Your task to perform on an android device: Open privacy settings Image 0: 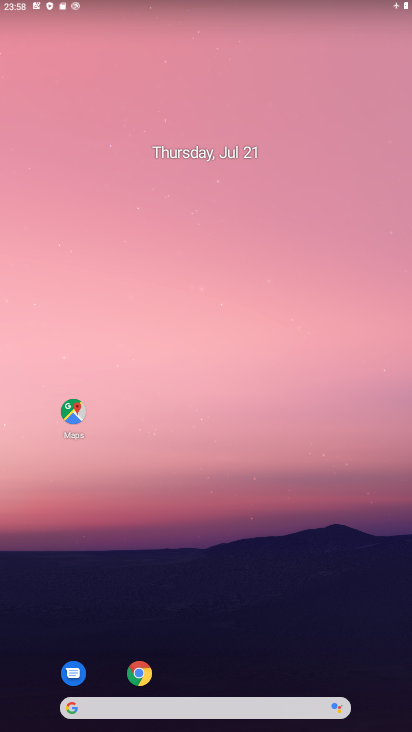
Step 0: drag from (257, 656) to (194, 149)
Your task to perform on an android device: Open privacy settings Image 1: 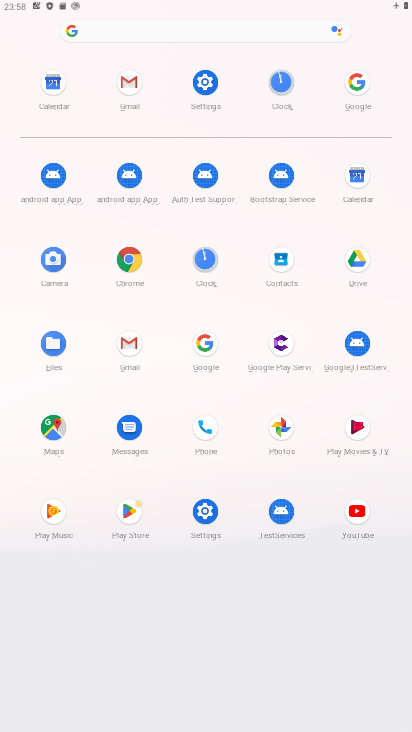
Step 1: click (189, 90)
Your task to perform on an android device: Open privacy settings Image 2: 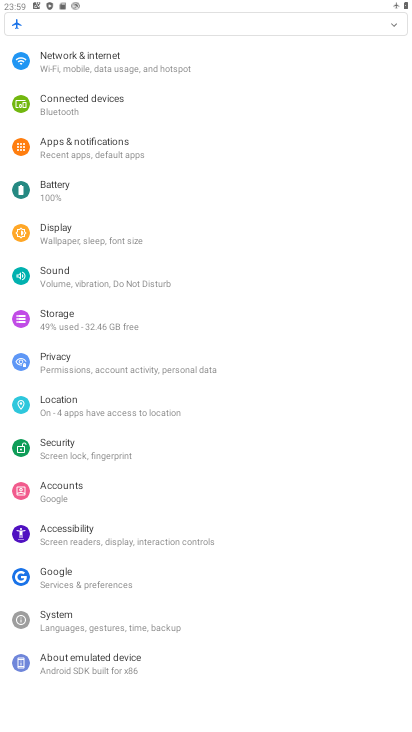
Step 2: click (90, 374)
Your task to perform on an android device: Open privacy settings Image 3: 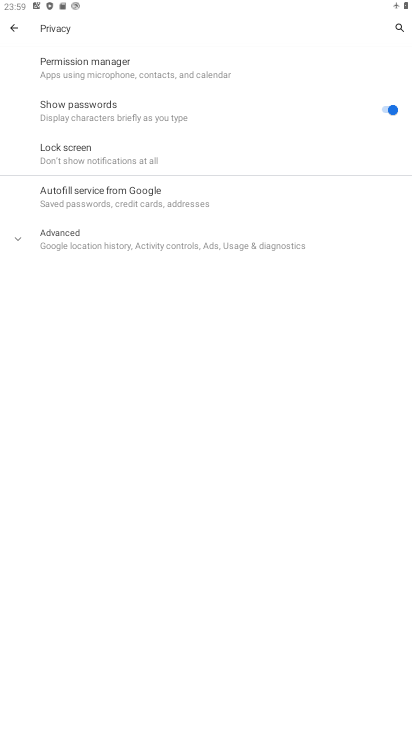
Step 3: task complete